Your task to perform on an android device: Open battery settings Image 0: 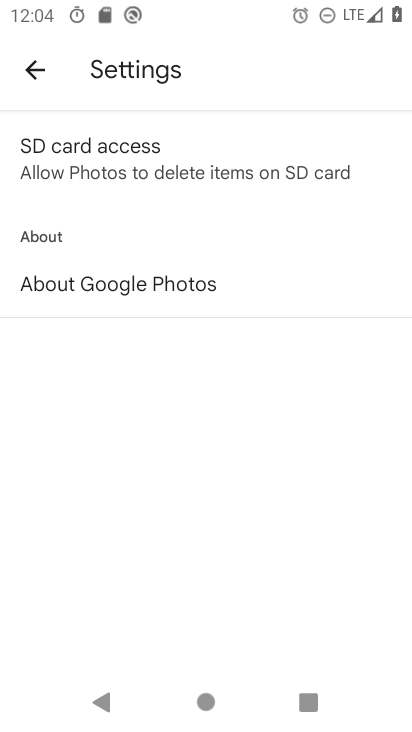
Step 0: press home button
Your task to perform on an android device: Open battery settings Image 1: 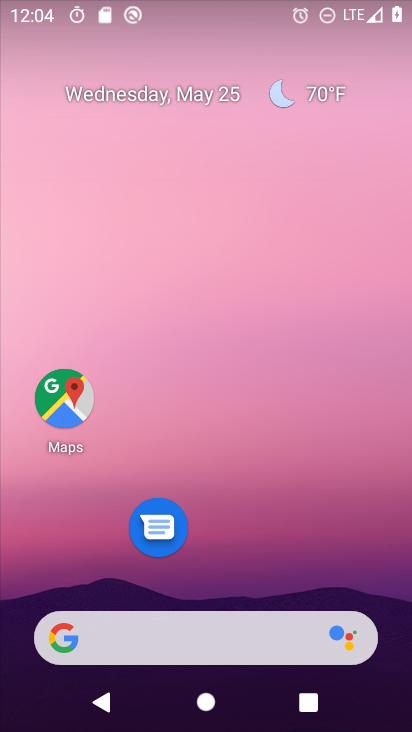
Step 1: drag from (286, 524) to (295, 90)
Your task to perform on an android device: Open battery settings Image 2: 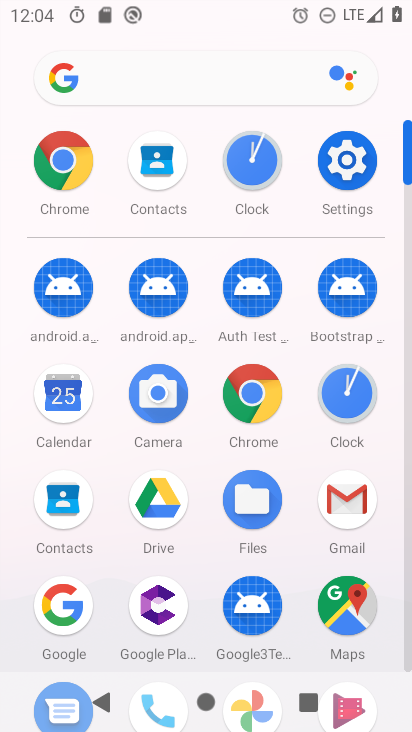
Step 2: click (352, 160)
Your task to perform on an android device: Open battery settings Image 3: 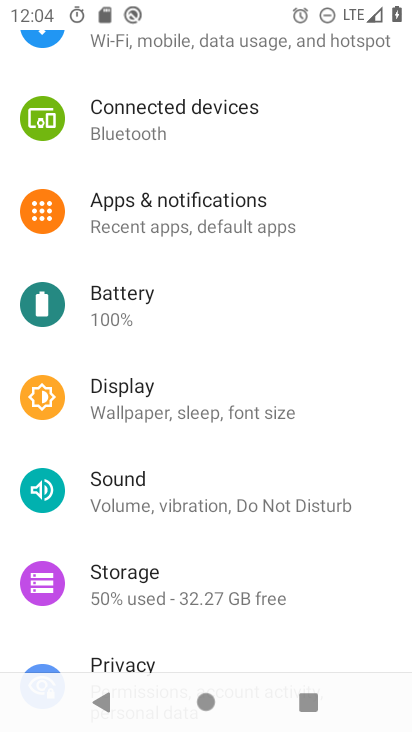
Step 3: drag from (223, 520) to (224, 427)
Your task to perform on an android device: Open battery settings Image 4: 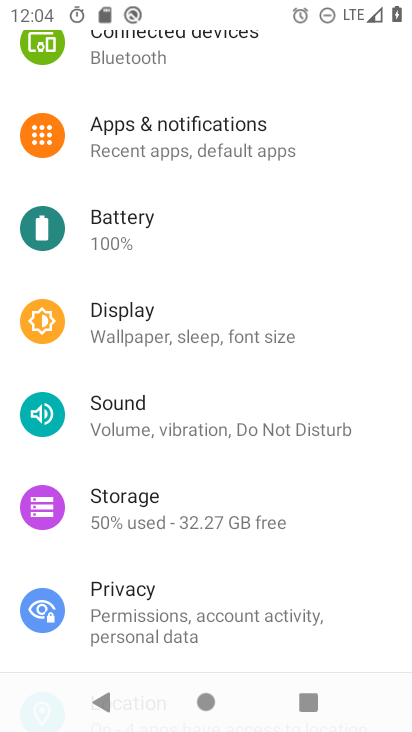
Step 4: click (164, 229)
Your task to perform on an android device: Open battery settings Image 5: 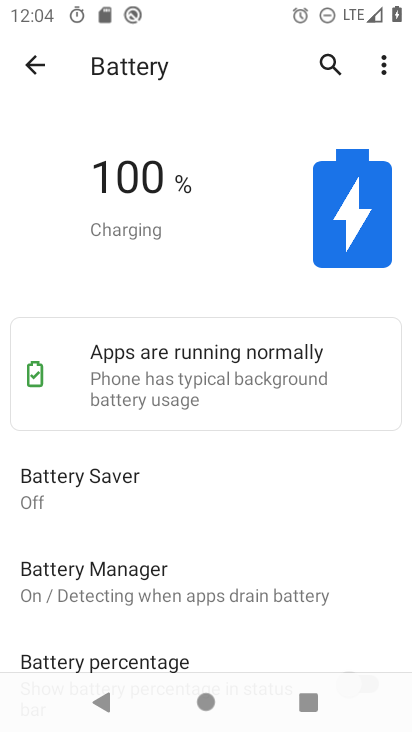
Step 5: task complete